Your task to perform on an android device: Open the stopwatch Image 0: 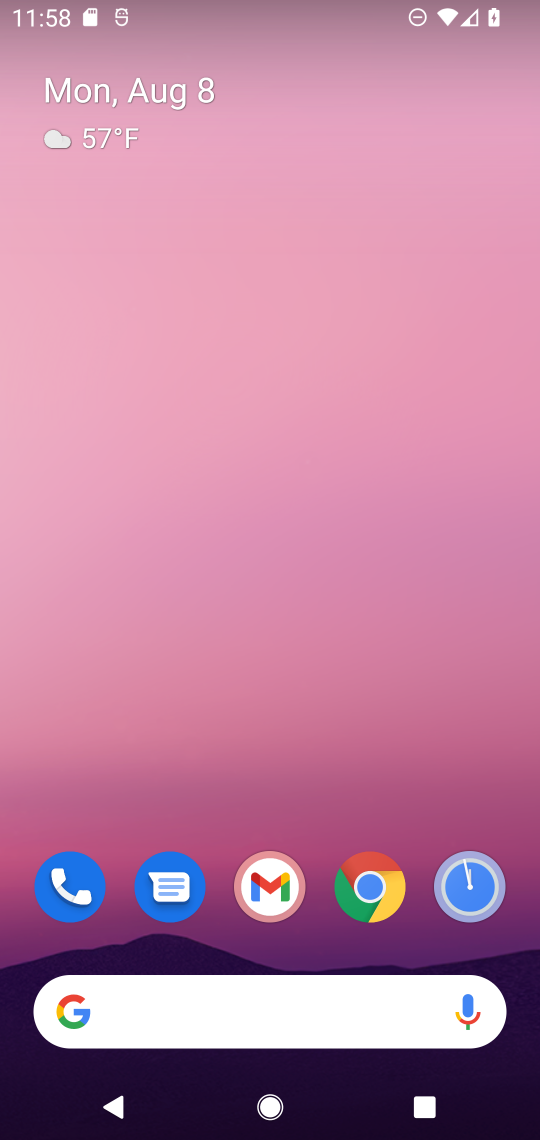
Step 0: click (473, 885)
Your task to perform on an android device: Open the stopwatch Image 1: 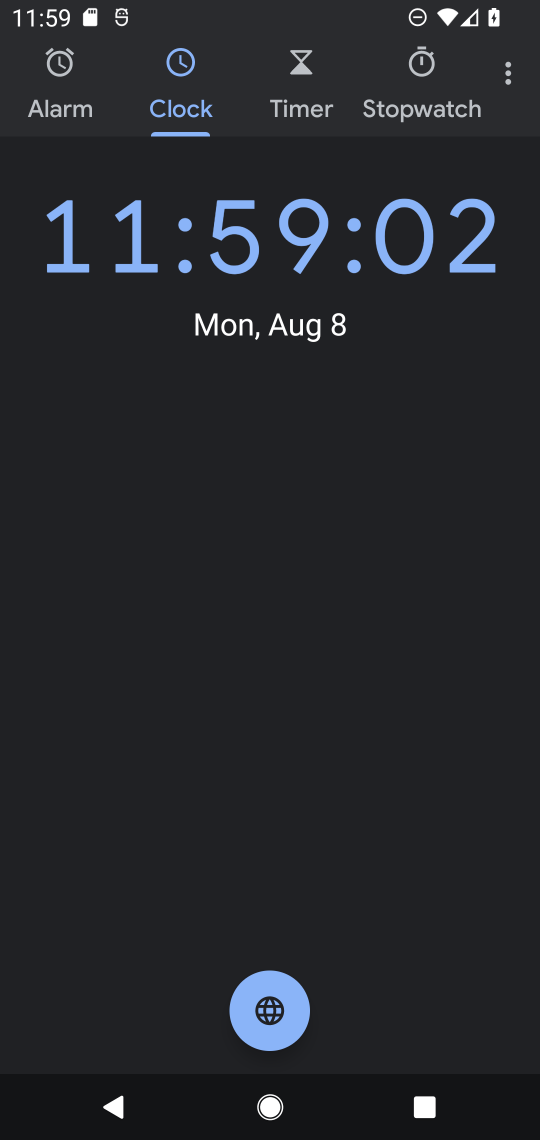
Step 1: click (421, 70)
Your task to perform on an android device: Open the stopwatch Image 2: 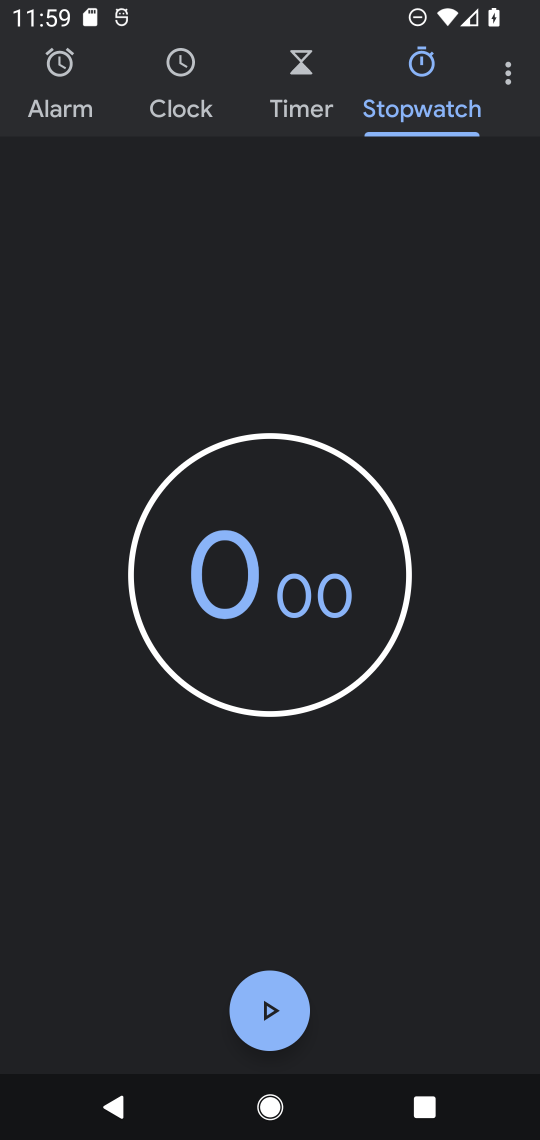
Step 2: task complete